Your task to perform on an android device: check storage Image 0: 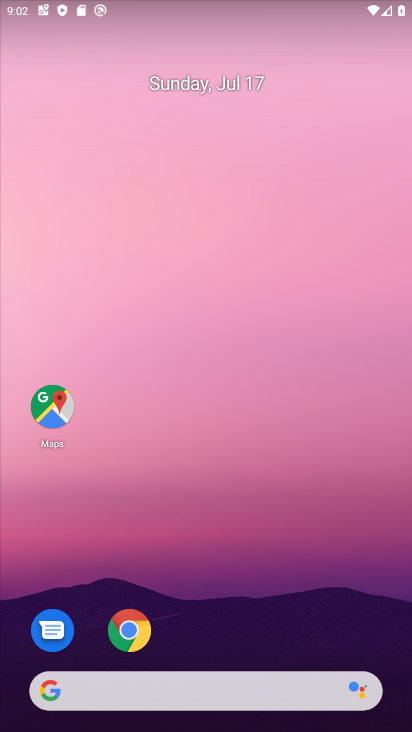
Step 0: drag from (347, 617) to (374, 72)
Your task to perform on an android device: check storage Image 1: 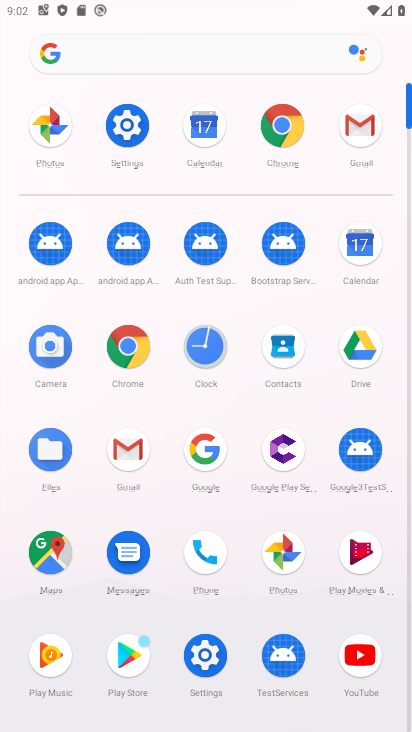
Step 1: click (130, 140)
Your task to perform on an android device: check storage Image 2: 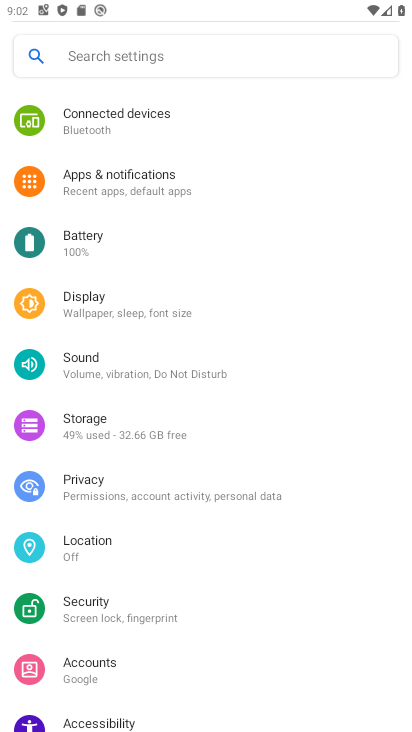
Step 2: drag from (269, 216) to (284, 308)
Your task to perform on an android device: check storage Image 3: 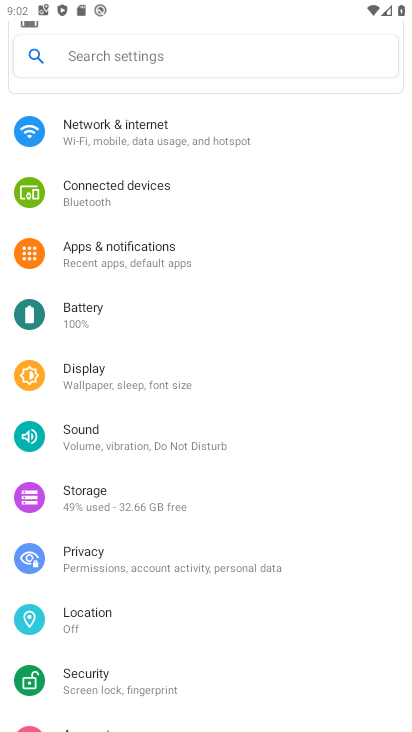
Step 3: drag from (319, 168) to (335, 407)
Your task to perform on an android device: check storage Image 4: 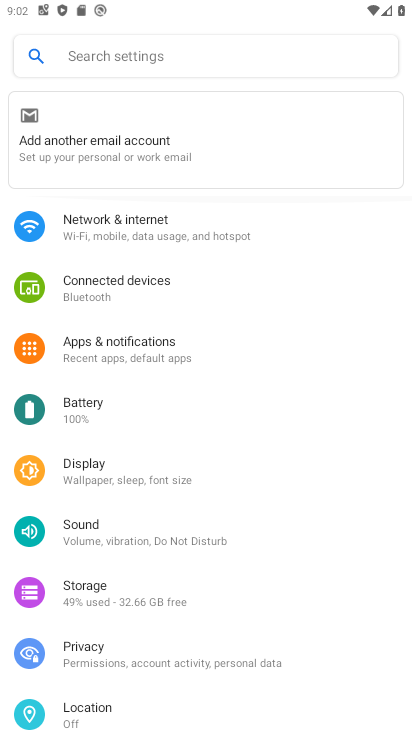
Step 4: drag from (331, 467) to (329, 358)
Your task to perform on an android device: check storage Image 5: 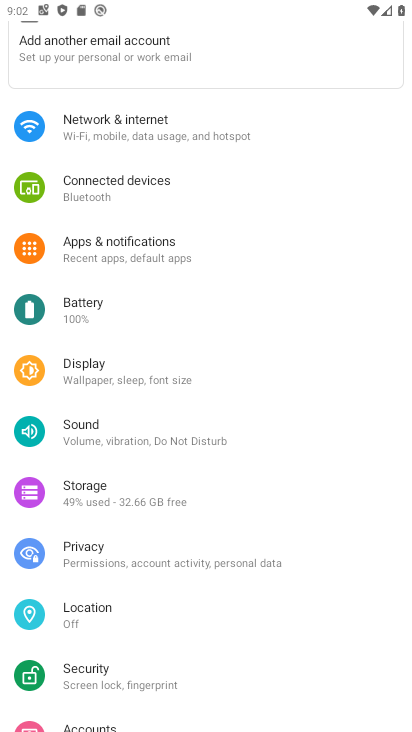
Step 5: drag from (335, 463) to (334, 367)
Your task to perform on an android device: check storage Image 6: 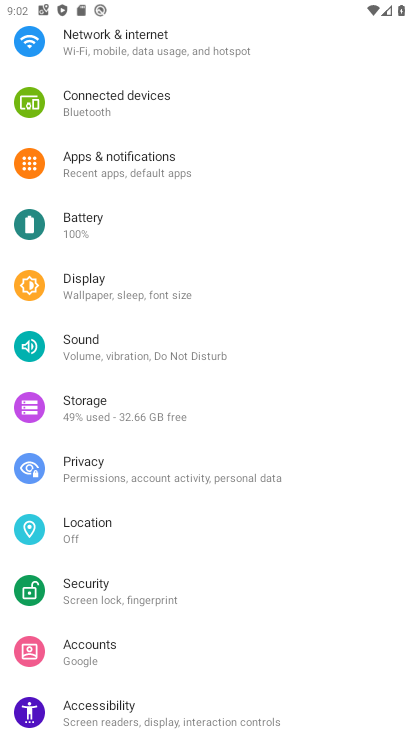
Step 6: drag from (324, 460) to (319, 373)
Your task to perform on an android device: check storage Image 7: 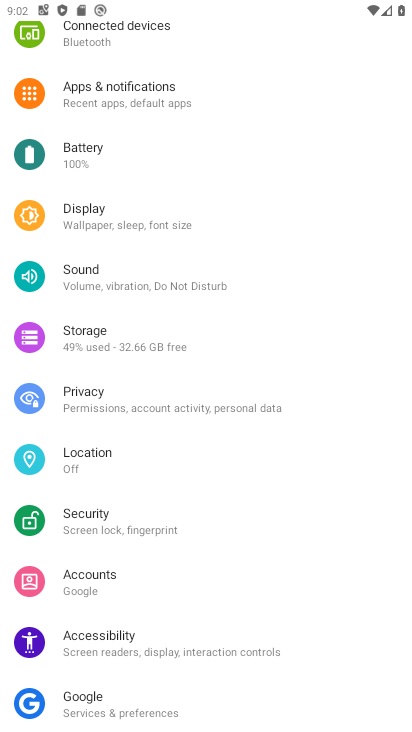
Step 7: drag from (336, 497) to (337, 414)
Your task to perform on an android device: check storage Image 8: 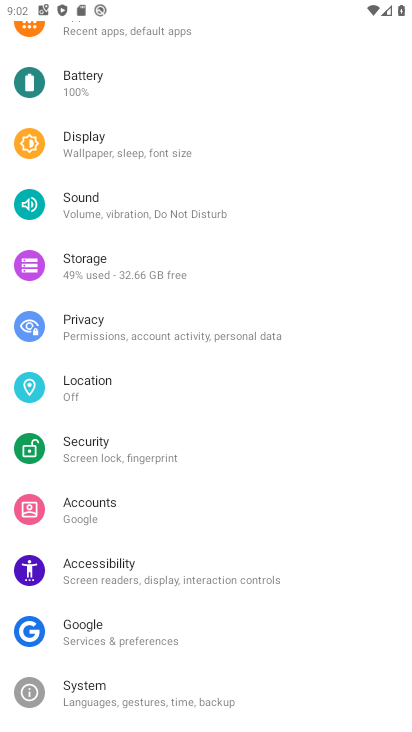
Step 8: drag from (338, 522) to (343, 442)
Your task to perform on an android device: check storage Image 9: 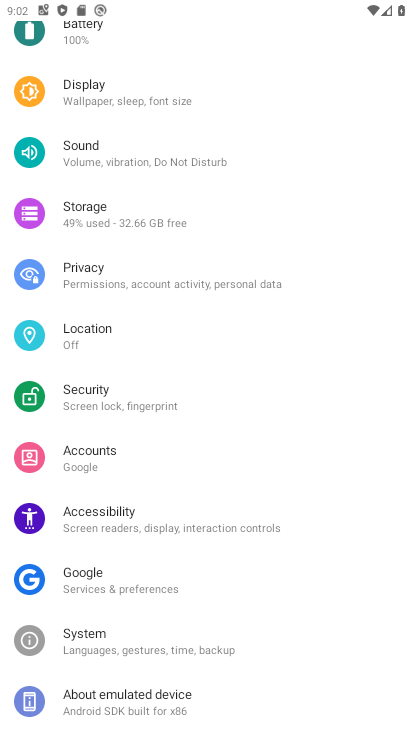
Step 9: drag from (333, 522) to (327, 439)
Your task to perform on an android device: check storage Image 10: 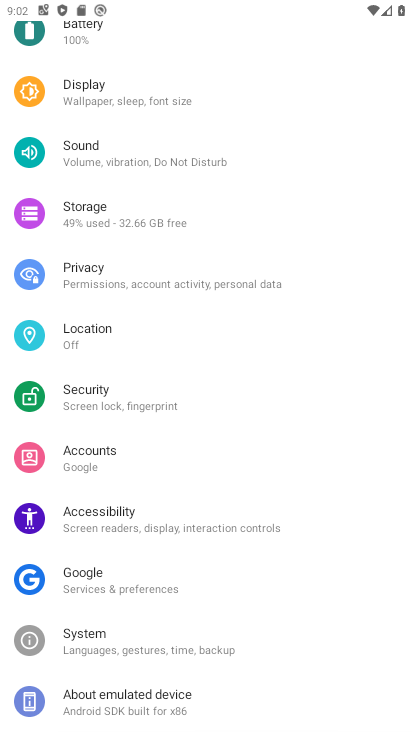
Step 10: drag from (312, 528) to (304, 401)
Your task to perform on an android device: check storage Image 11: 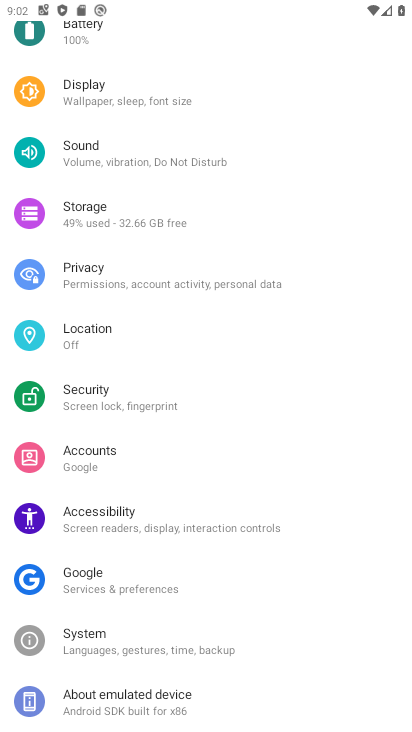
Step 11: drag from (306, 541) to (296, 409)
Your task to perform on an android device: check storage Image 12: 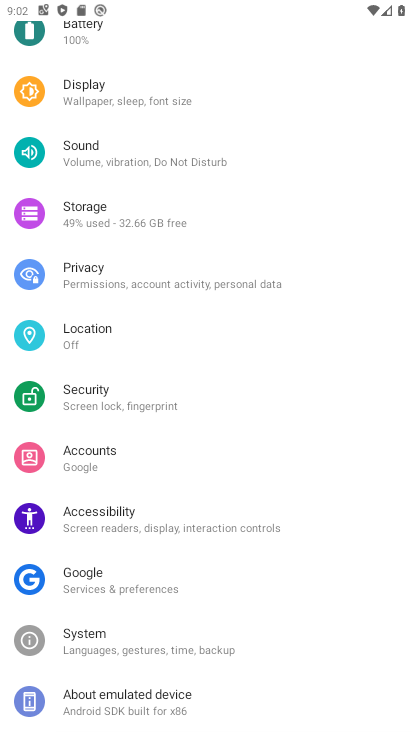
Step 12: drag from (289, 550) to (285, 435)
Your task to perform on an android device: check storage Image 13: 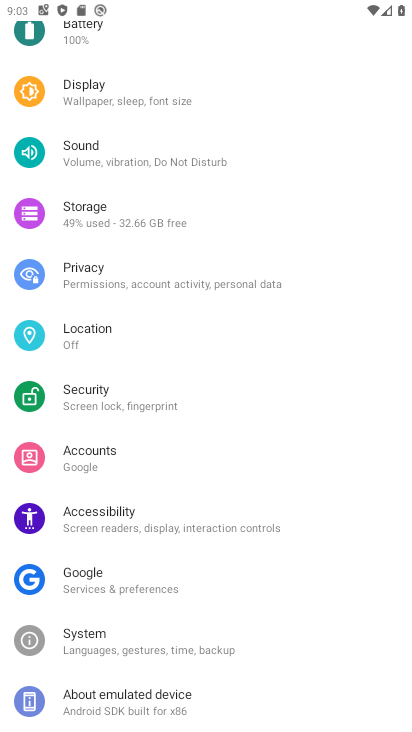
Step 13: drag from (332, 249) to (348, 369)
Your task to perform on an android device: check storage Image 14: 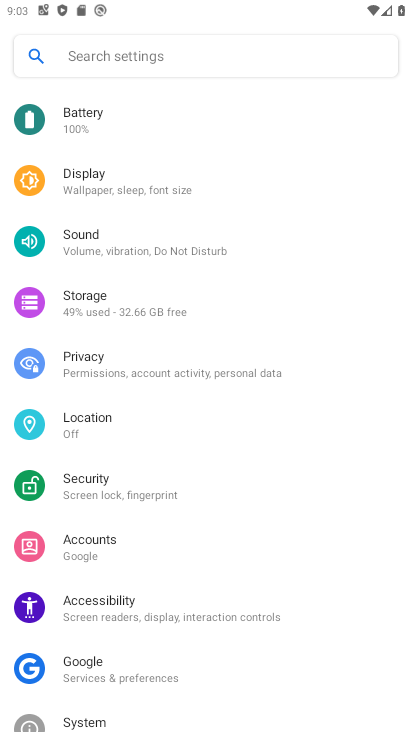
Step 14: click (214, 313)
Your task to perform on an android device: check storage Image 15: 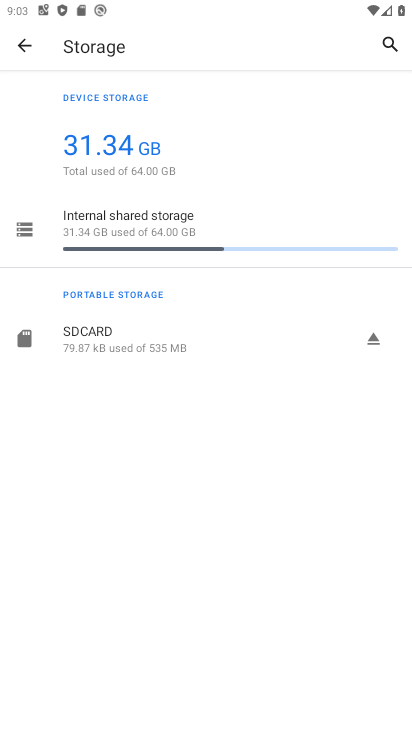
Step 15: task complete